Your task to perform on an android device: Open calendar and show me the third week of next month Image 0: 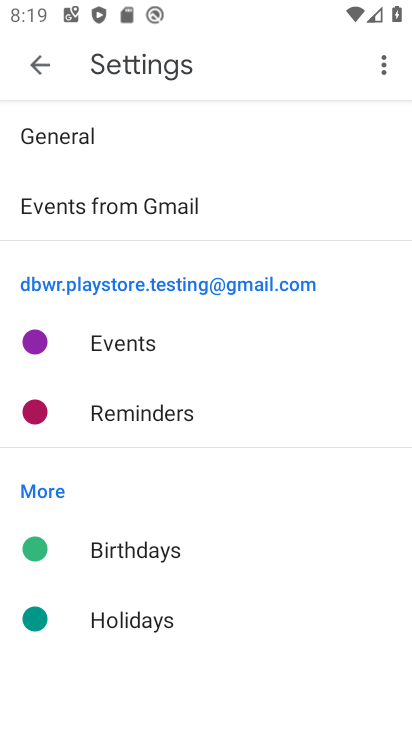
Step 0: press home button
Your task to perform on an android device: Open calendar and show me the third week of next month Image 1: 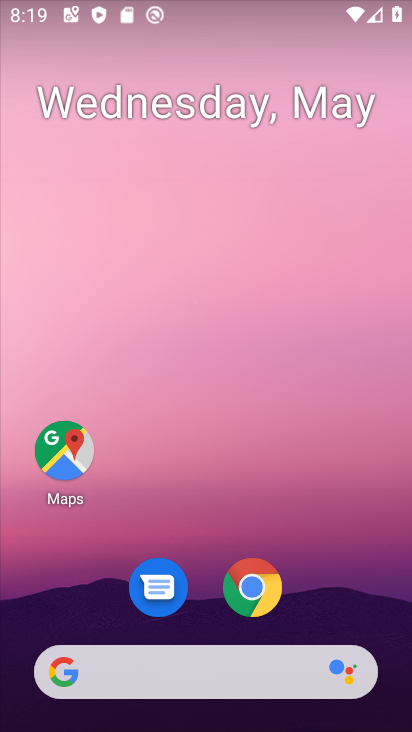
Step 1: drag from (380, 619) to (315, 29)
Your task to perform on an android device: Open calendar and show me the third week of next month Image 2: 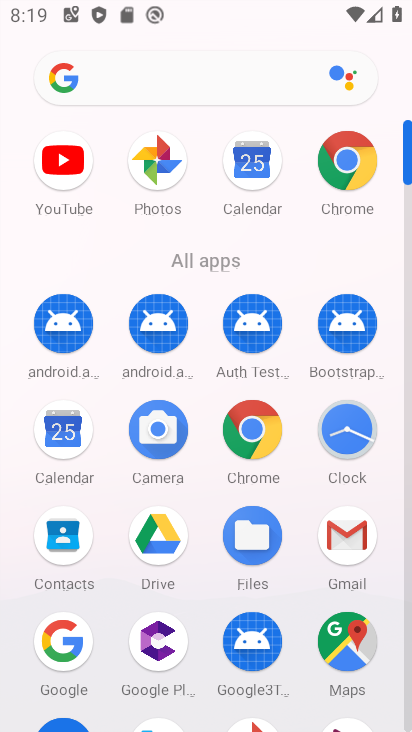
Step 2: click (407, 696)
Your task to perform on an android device: Open calendar and show me the third week of next month Image 3: 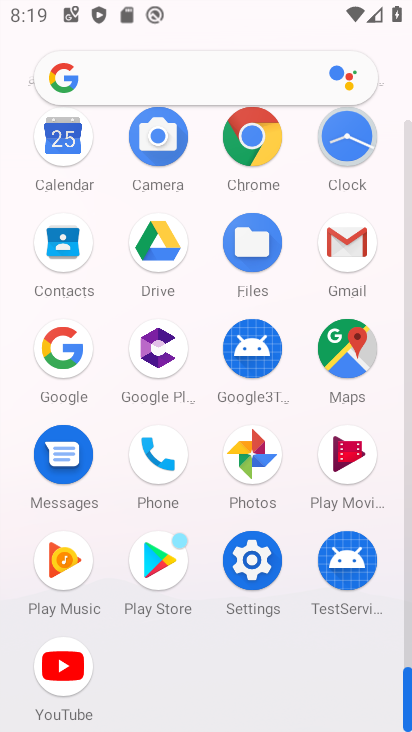
Step 3: click (67, 144)
Your task to perform on an android device: Open calendar and show me the third week of next month Image 4: 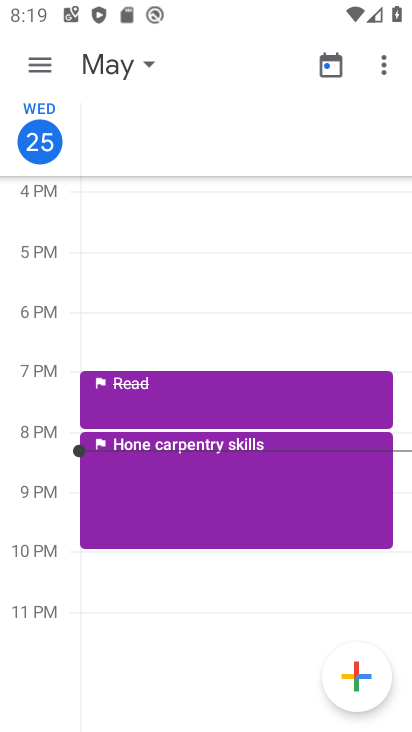
Step 4: click (43, 74)
Your task to perform on an android device: Open calendar and show me the third week of next month Image 5: 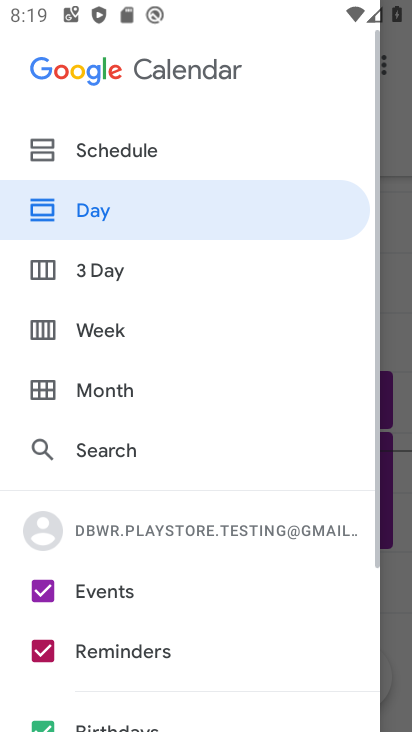
Step 5: click (111, 326)
Your task to perform on an android device: Open calendar and show me the third week of next month Image 6: 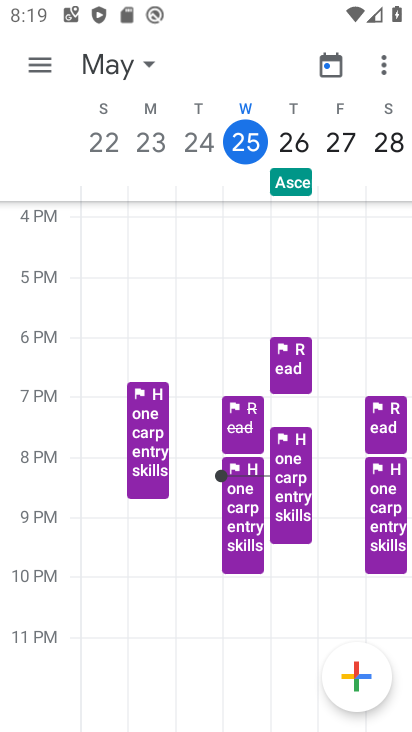
Step 6: click (147, 58)
Your task to perform on an android device: Open calendar and show me the third week of next month Image 7: 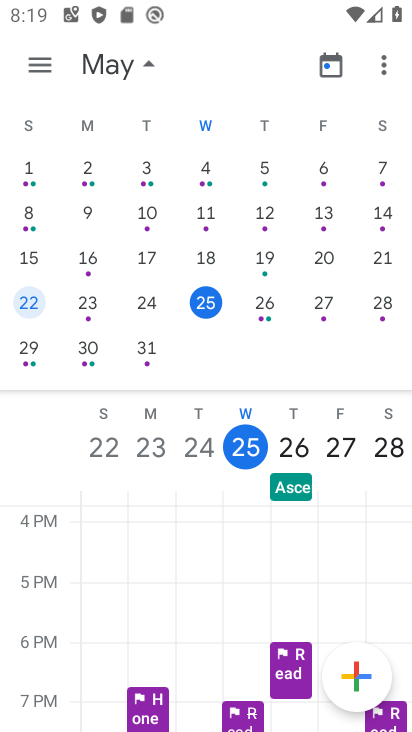
Step 7: drag from (385, 240) to (43, 211)
Your task to perform on an android device: Open calendar and show me the third week of next month Image 8: 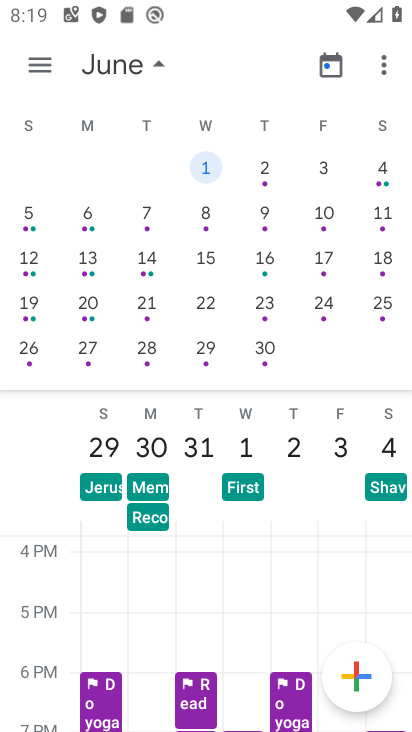
Step 8: click (29, 304)
Your task to perform on an android device: Open calendar and show me the third week of next month Image 9: 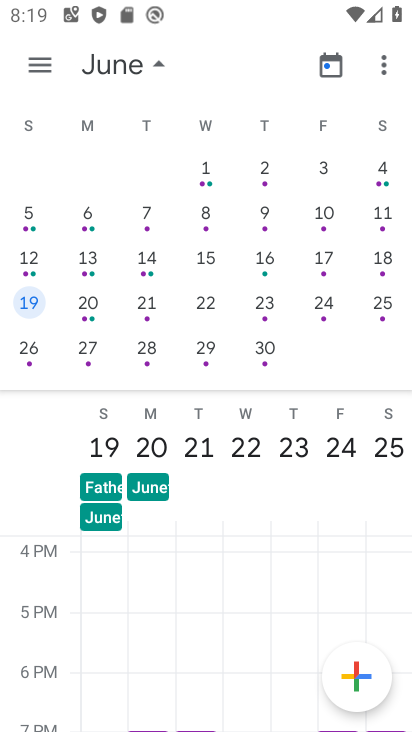
Step 9: task complete